Your task to perform on an android device: Open Google Chrome and open the bookmarks view Image 0: 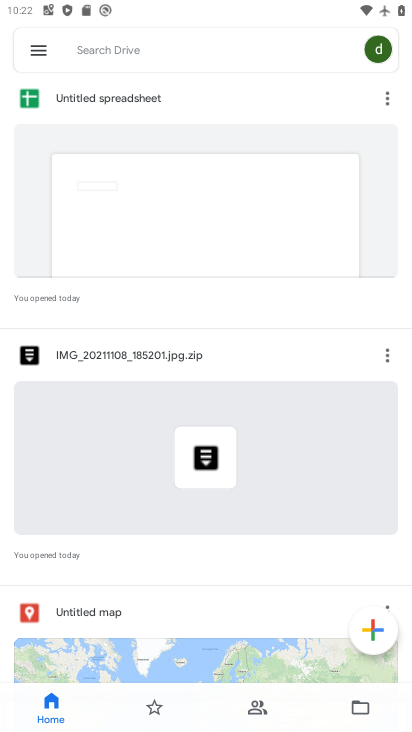
Step 0: press home button
Your task to perform on an android device: Open Google Chrome and open the bookmarks view Image 1: 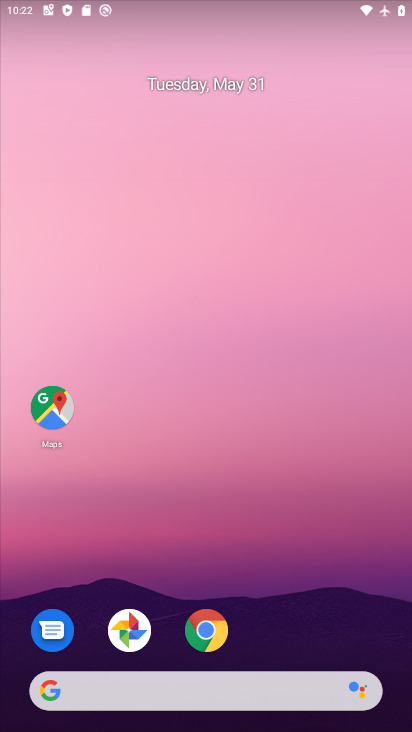
Step 1: drag from (274, 610) to (279, 274)
Your task to perform on an android device: Open Google Chrome and open the bookmarks view Image 2: 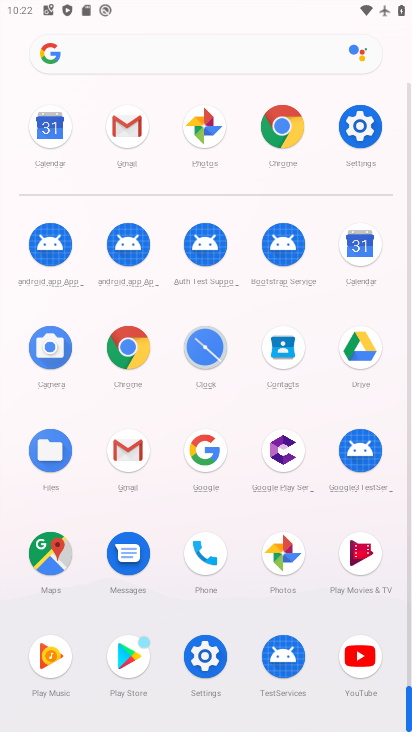
Step 2: click (124, 337)
Your task to perform on an android device: Open Google Chrome and open the bookmarks view Image 3: 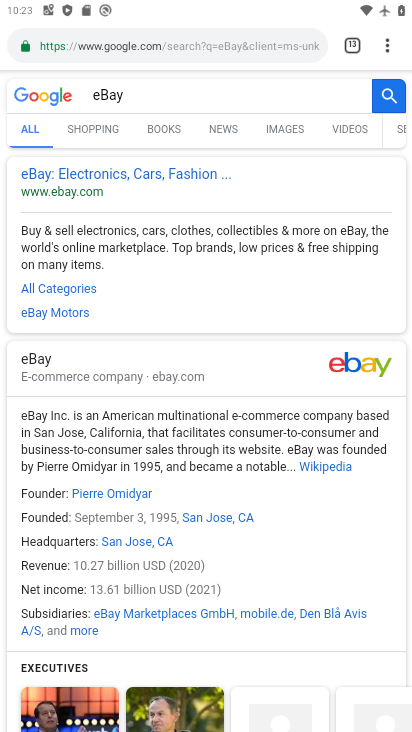
Step 3: click (389, 37)
Your task to perform on an android device: Open Google Chrome and open the bookmarks view Image 4: 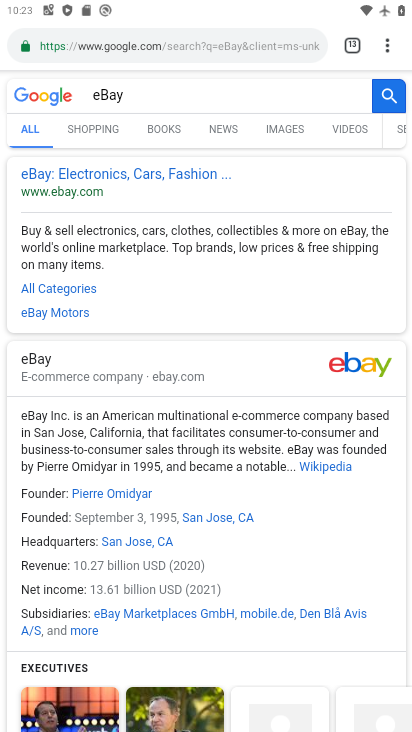
Step 4: click (382, 39)
Your task to perform on an android device: Open Google Chrome and open the bookmarks view Image 5: 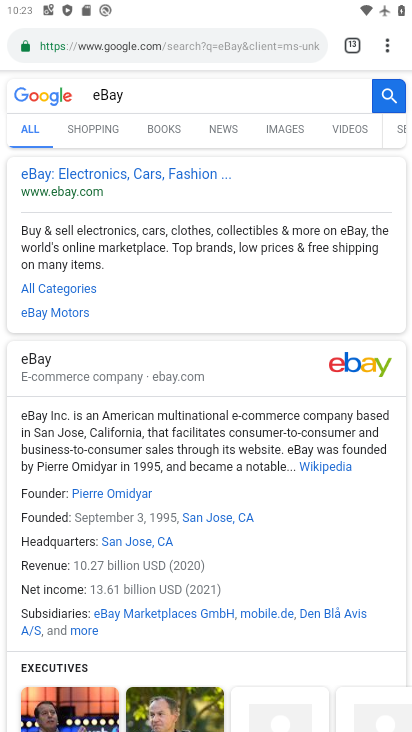
Step 5: click (393, 39)
Your task to perform on an android device: Open Google Chrome and open the bookmarks view Image 6: 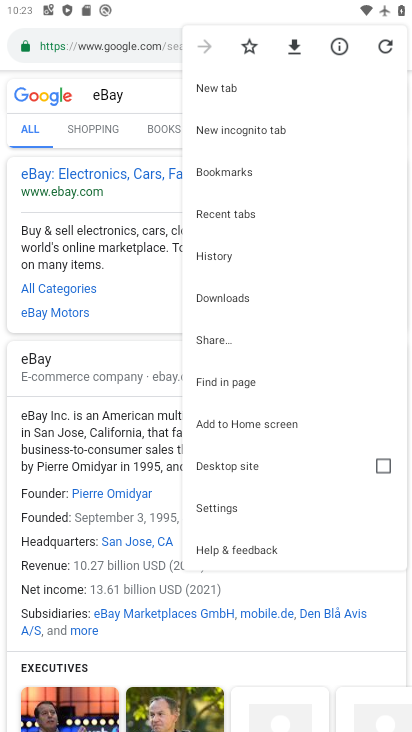
Step 6: click (248, 181)
Your task to perform on an android device: Open Google Chrome and open the bookmarks view Image 7: 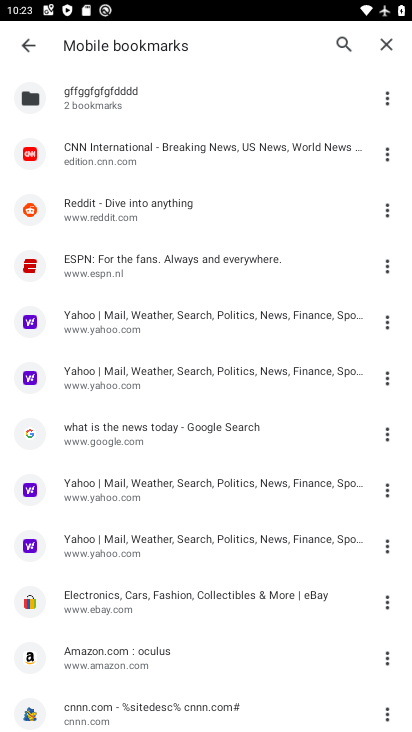
Step 7: task complete